Your task to perform on an android device: turn pop-ups on in chrome Image 0: 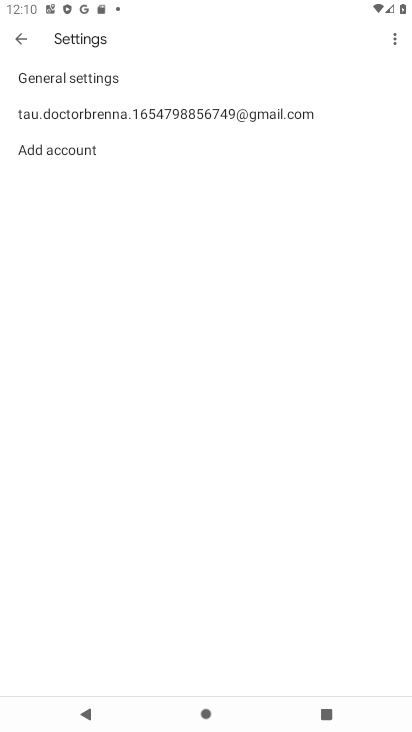
Step 0: press home button
Your task to perform on an android device: turn pop-ups on in chrome Image 1: 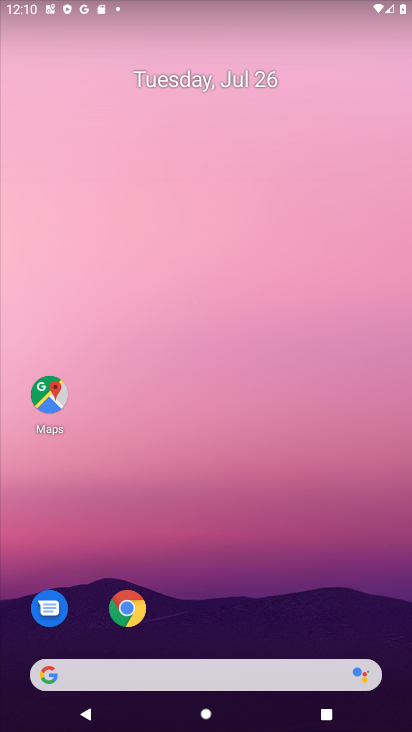
Step 1: click (135, 613)
Your task to perform on an android device: turn pop-ups on in chrome Image 2: 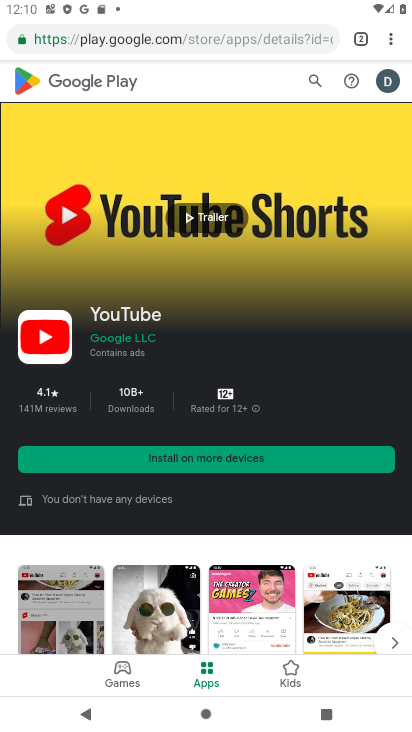
Step 2: click (399, 31)
Your task to perform on an android device: turn pop-ups on in chrome Image 3: 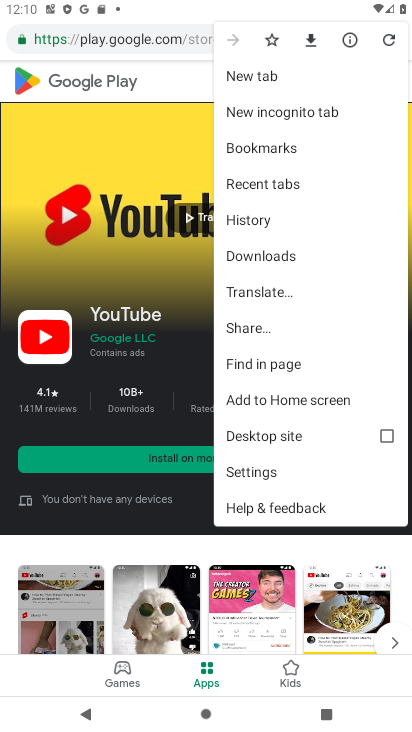
Step 3: click (252, 463)
Your task to perform on an android device: turn pop-ups on in chrome Image 4: 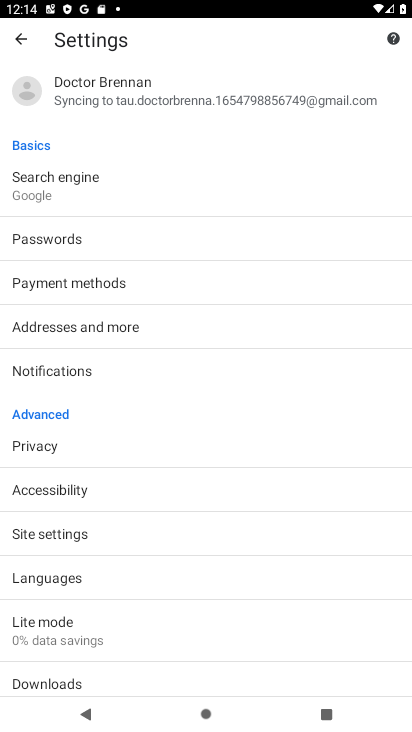
Step 4: click (76, 547)
Your task to perform on an android device: turn pop-ups on in chrome Image 5: 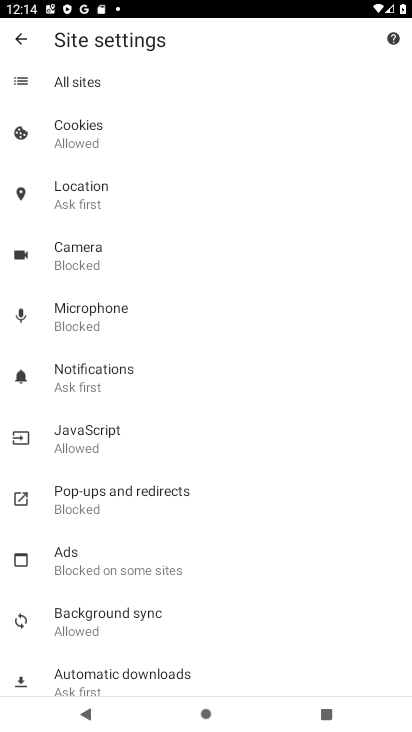
Step 5: click (108, 504)
Your task to perform on an android device: turn pop-ups on in chrome Image 6: 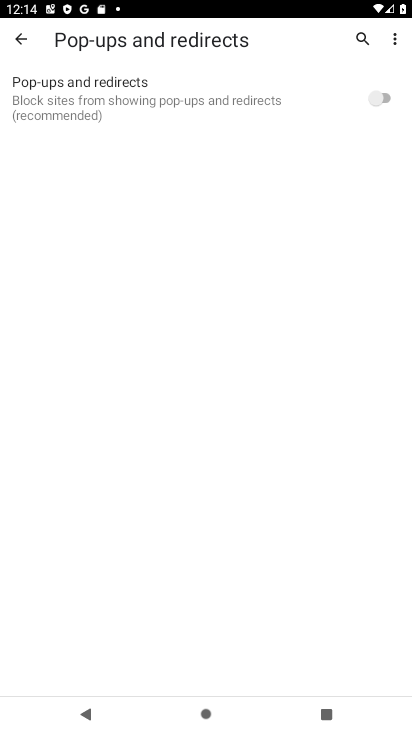
Step 6: click (383, 103)
Your task to perform on an android device: turn pop-ups on in chrome Image 7: 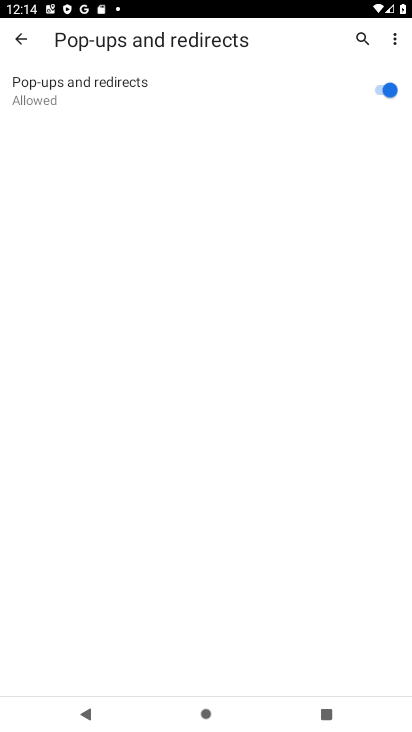
Step 7: task complete